Your task to perform on an android device: Toggle the flashlight Image 0: 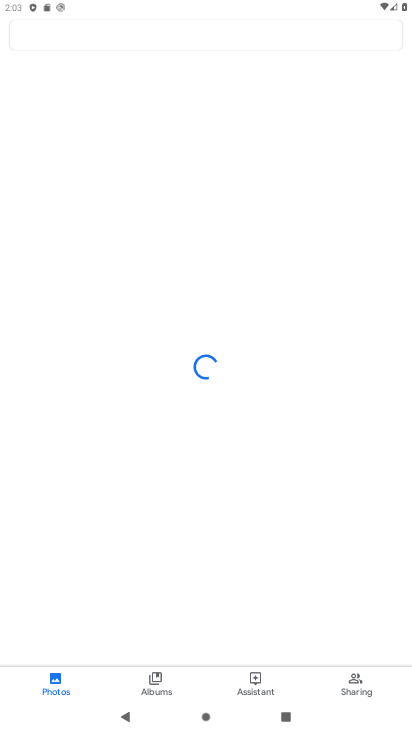
Step 0: press home button
Your task to perform on an android device: Toggle the flashlight Image 1: 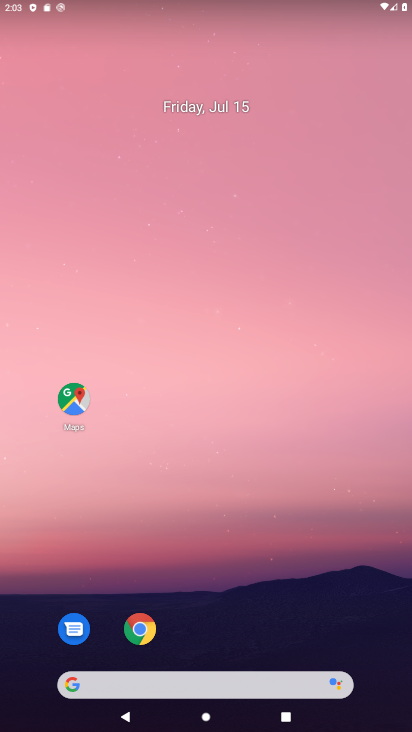
Step 1: drag from (255, 629) to (323, 106)
Your task to perform on an android device: Toggle the flashlight Image 2: 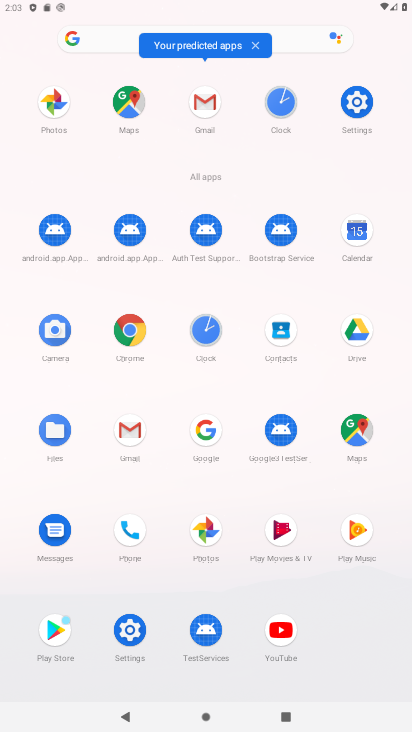
Step 2: click (365, 99)
Your task to perform on an android device: Toggle the flashlight Image 3: 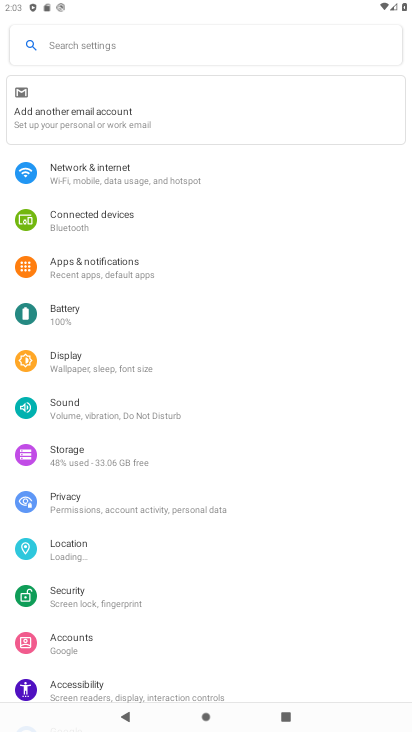
Step 3: click (122, 43)
Your task to perform on an android device: Toggle the flashlight Image 4: 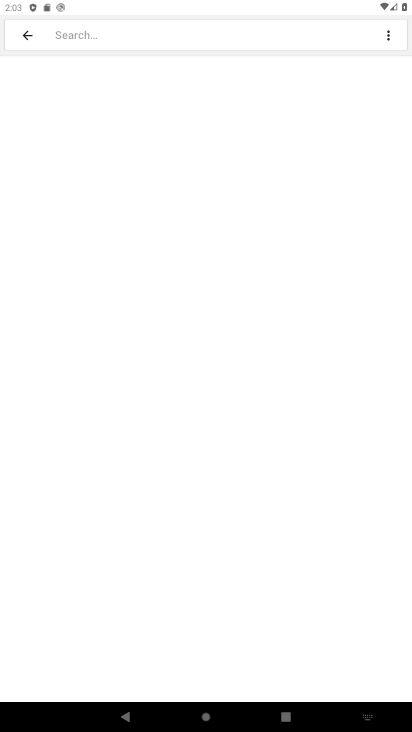
Step 4: type "flashlight"
Your task to perform on an android device: Toggle the flashlight Image 5: 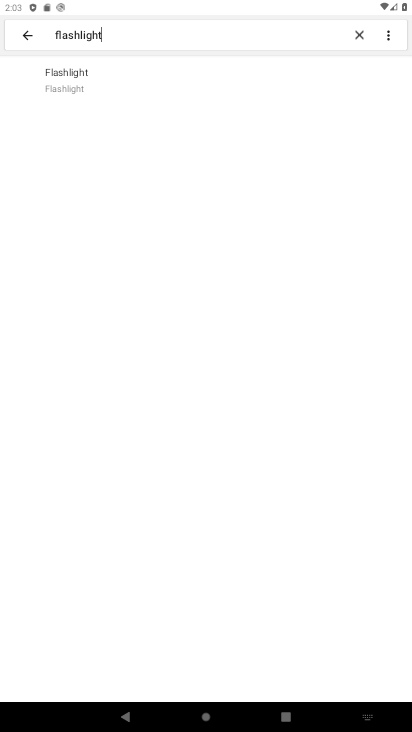
Step 5: task complete